Your task to perform on an android device: turn off airplane mode Image 0: 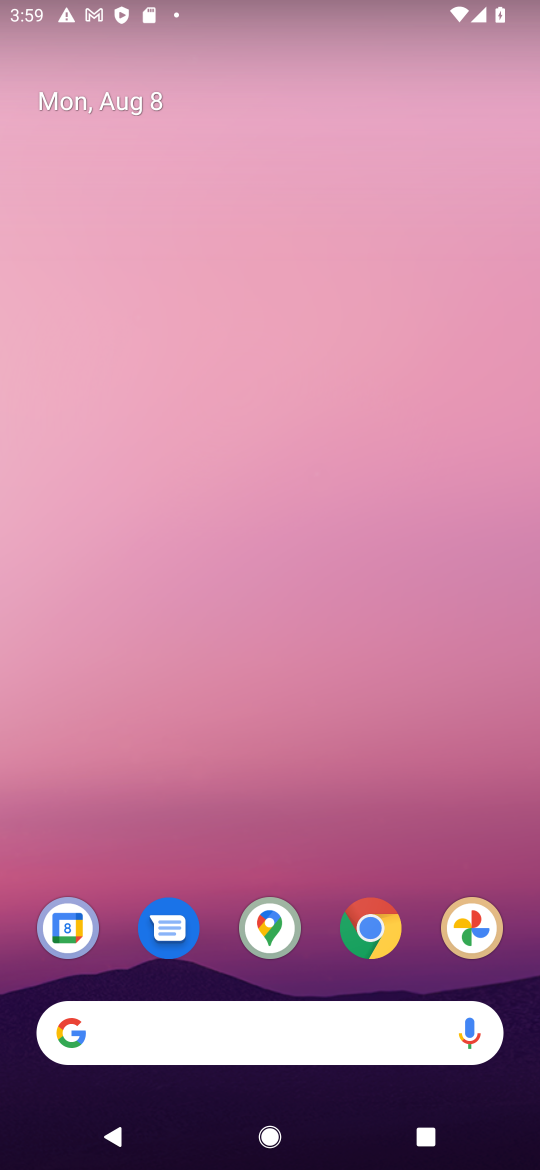
Step 0: drag from (366, 847) to (244, 163)
Your task to perform on an android device: turn off airplane mode Image 1: 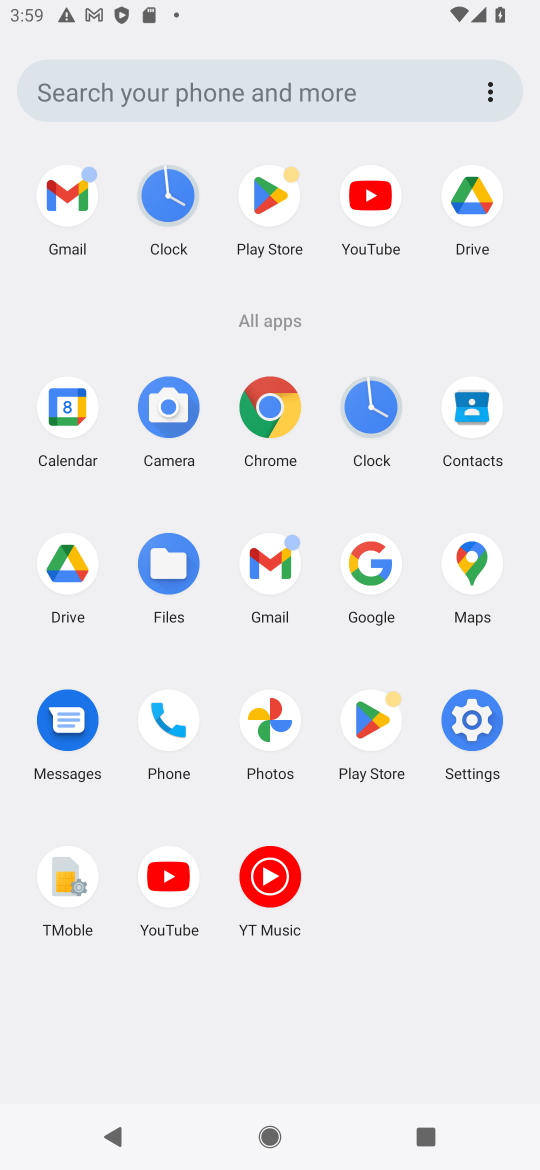
Step 1: click (472, 706)
Your task to perform on an android device: turn off airplane mode Image 2: 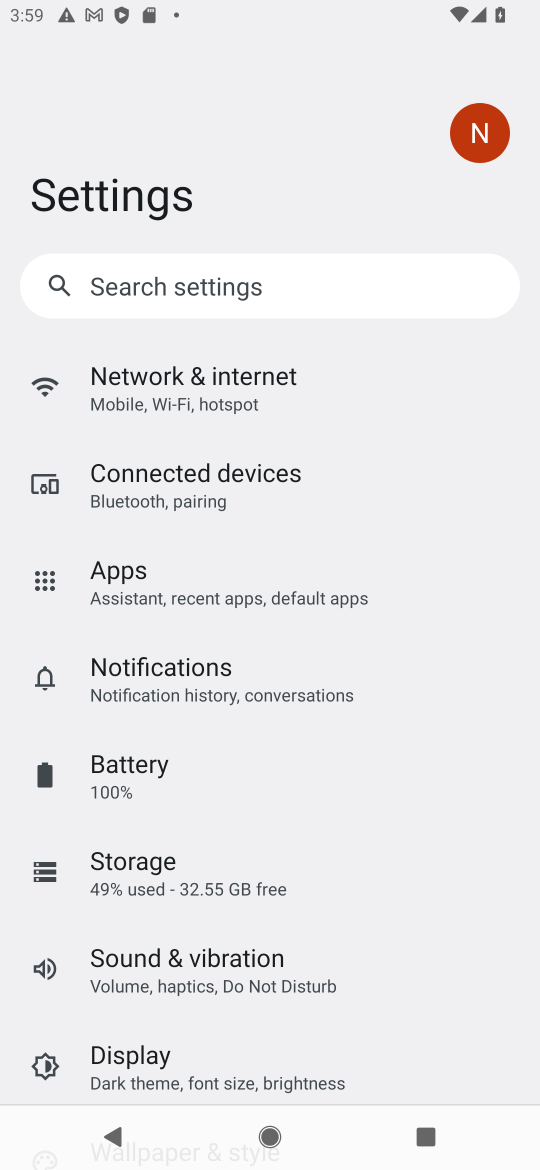
Step 2: click (276, 371)
Your task to perform on an android device: turn off airplane mode Image 3: 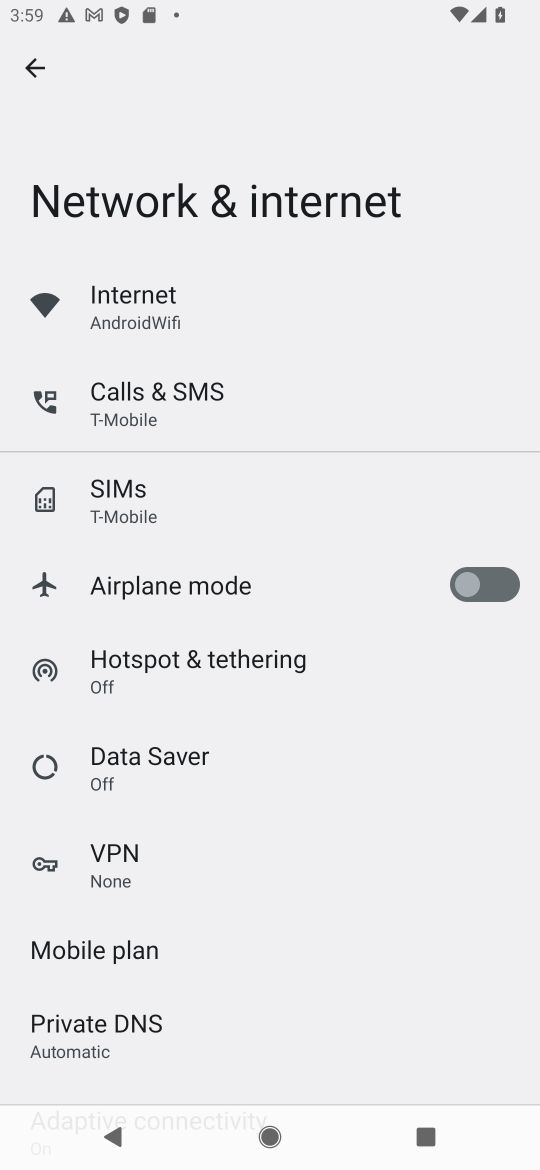
Step 3: task complete